Your task to perform on an android device: see sites visited before in the chrome app Image 0: 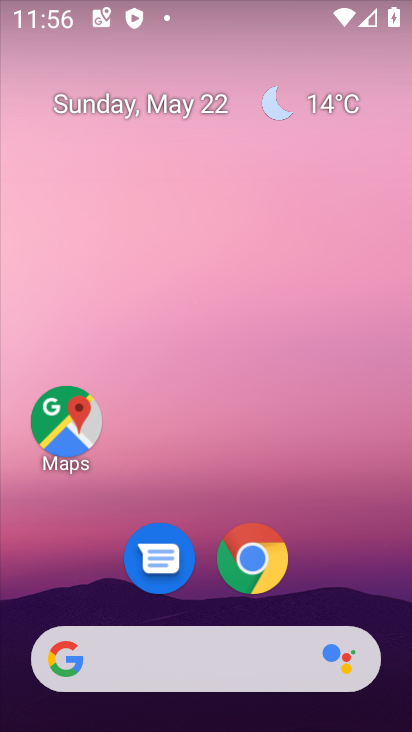
Step 0: click (253, 566)
Your task to perform on an android device: see sites visited before in the chrome app Image 1: 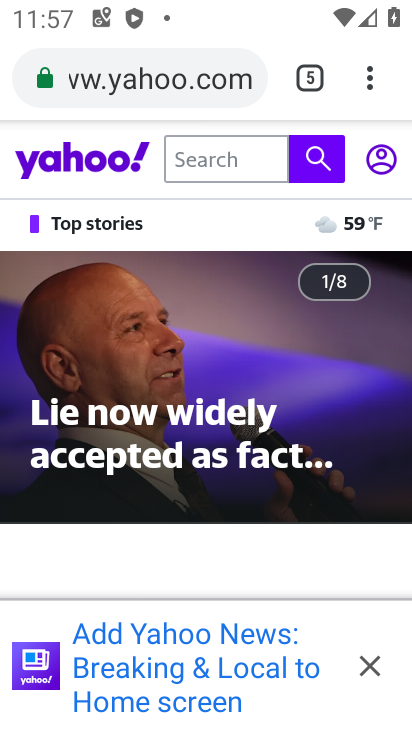
Step 1: click (368, 77)
Your task to perform on an android device: see sites visited before in the chrome app Image 2: 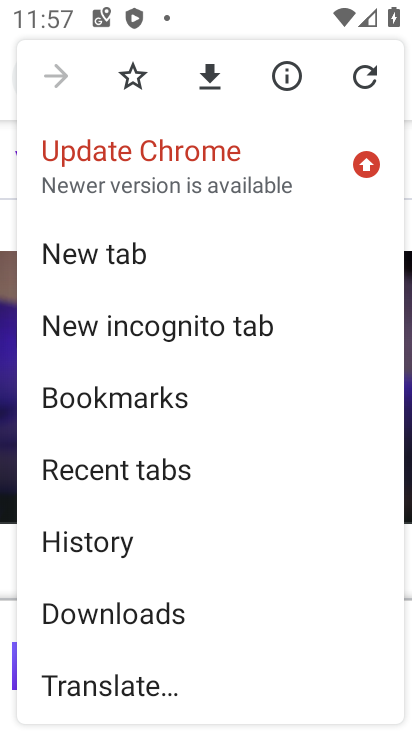
Step 2: click (88, 545)
Your task to perform on an android device: see sites visited before in the chrome app Image 3: 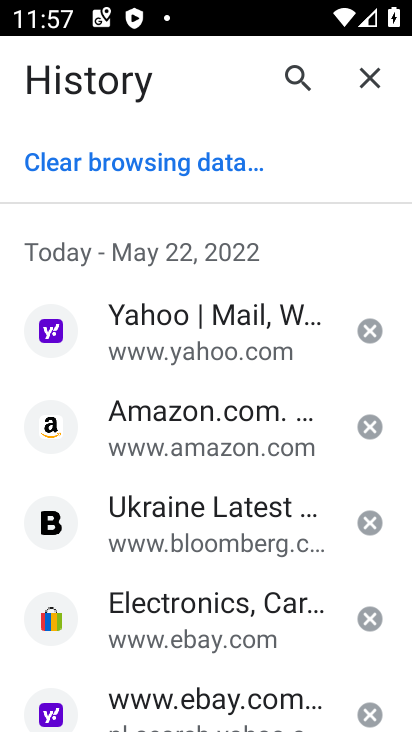
Step 3: task complete